Your task to perform on an android device: Open Google Maps and go to "Timeline" Image 0: 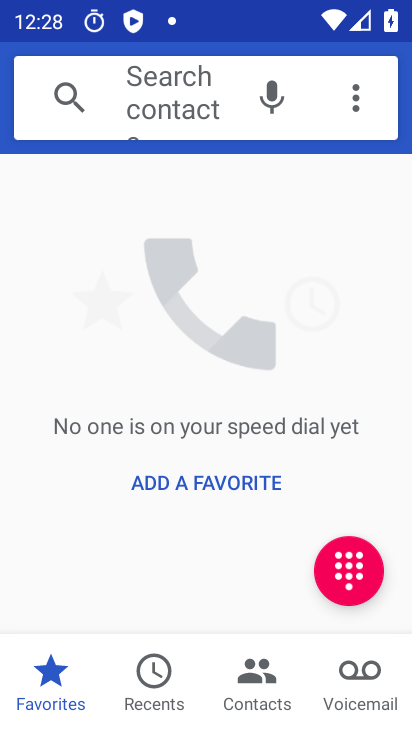
Step 0: press back button
Your task to perform on an android device: Open Google Maps and go to "Timeline" Image 1: 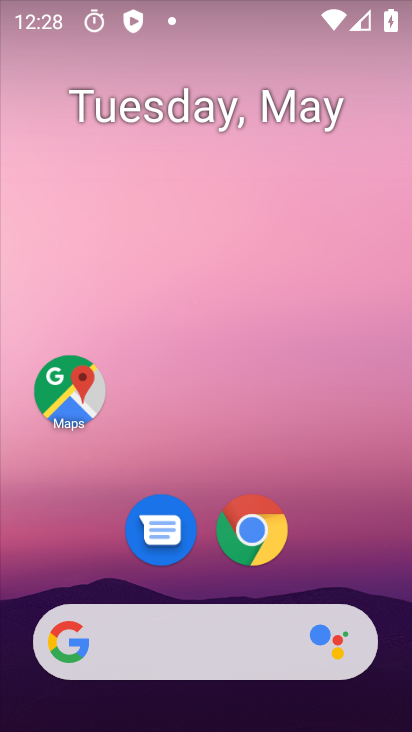
Step 1: drag from (371, 517) to (298, 67)
Your task to perform on an android device: Open Google Maps and go to "Timeline" Image 2: 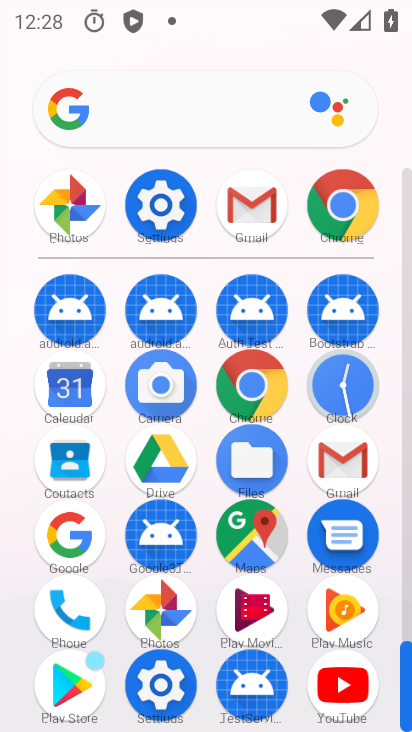
Step 2: click (245, 537)
Your task to perform on an android device: Open Google Maps and go to "Timeline" Image 3: 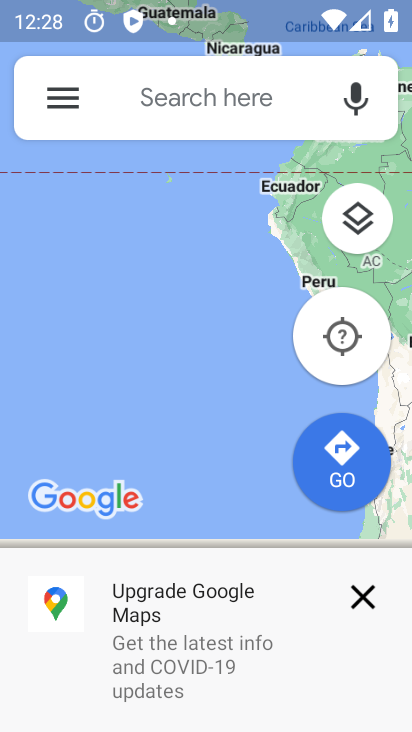
Step 3: click (62, 97)
Your task to perform on an android device: Open Google Maps and go to "Timeline" Image 4: 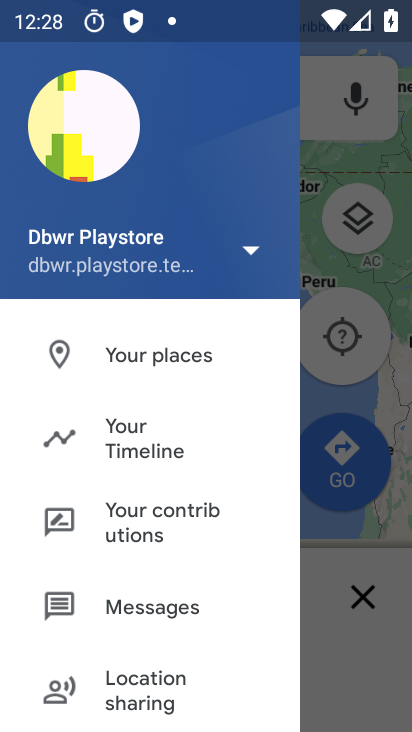
Step 4: click (122, 444)
Your task to perform on an android device: Open Google Maps and go to "Timeline" Image 5: 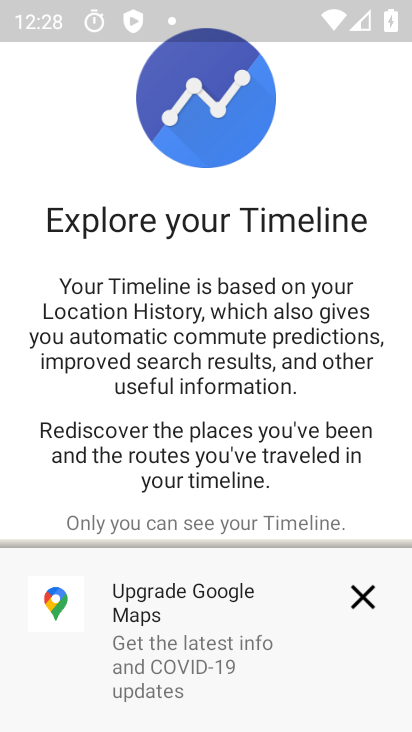
Step 5: click (351, 598)
Your task to perform on an android device: Open Google Maps and go to "Timeline" Image 6: 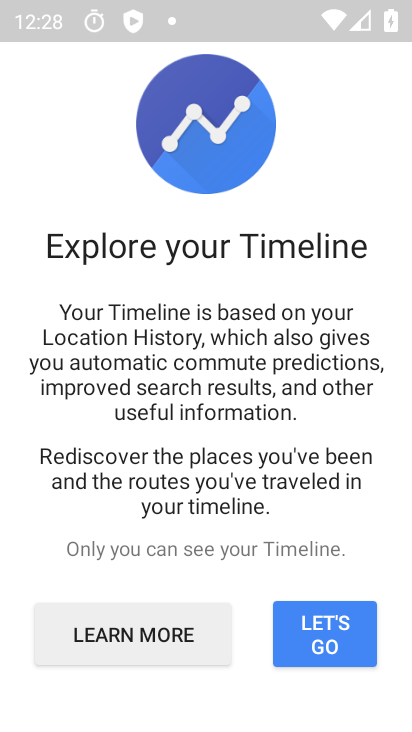
Step 6: click (333, 637)
Your task to perform on an android device: Open Google Maps and go to "Timeline" Image 7: 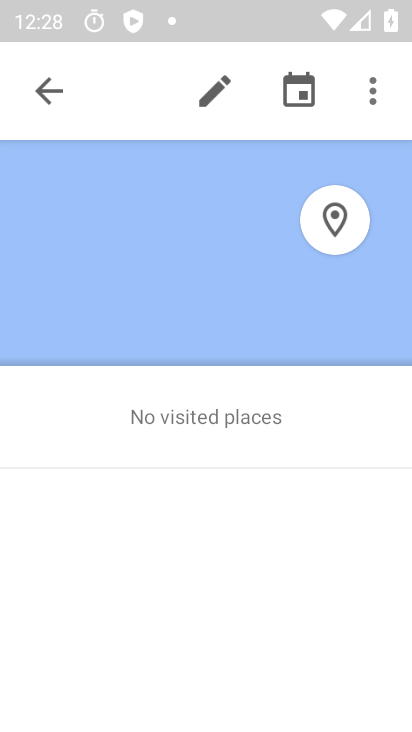
Step 7: click (45, 89)
Your task to perform on an android device: Open Google Maps and go to "Timeline" Image 8: 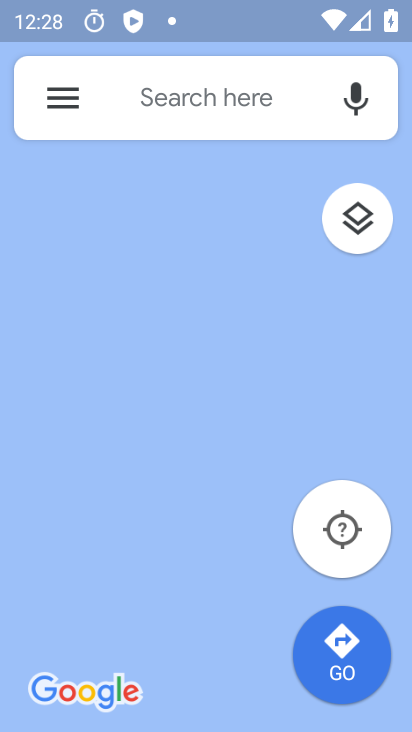
Step 8: click (61, 83)
Your task to perform on an android device: Open Google Maps and go to "Timeline" Image 9: 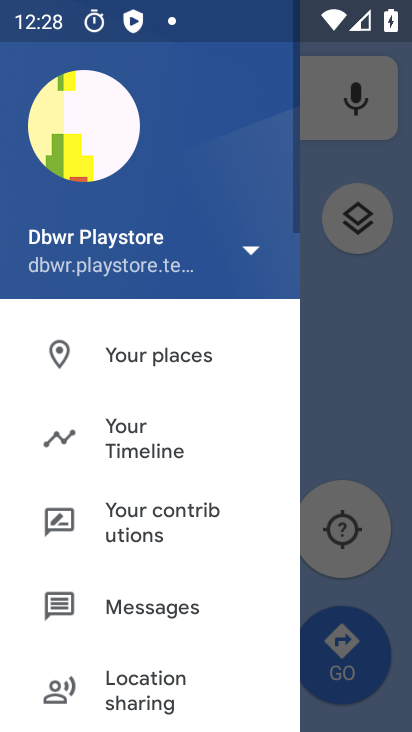
Step 9: click (135, 437)
Your task to perform on an android device: Open Google Maps and go to "Timeline" Image 10: 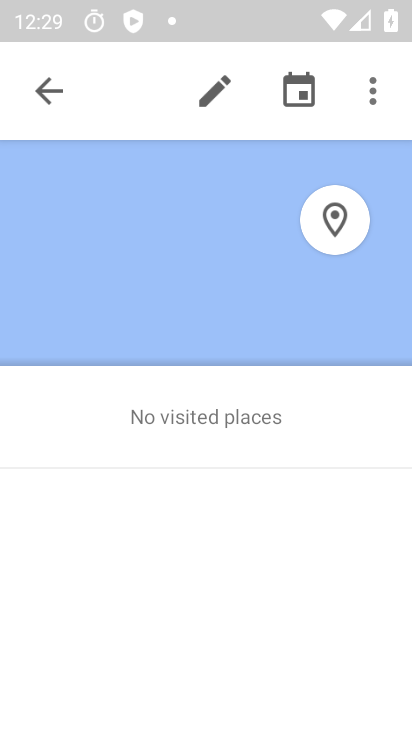
Step 10: task complete